Your task to perform on an android device: Go to calendar. Show me events next week Image 0: 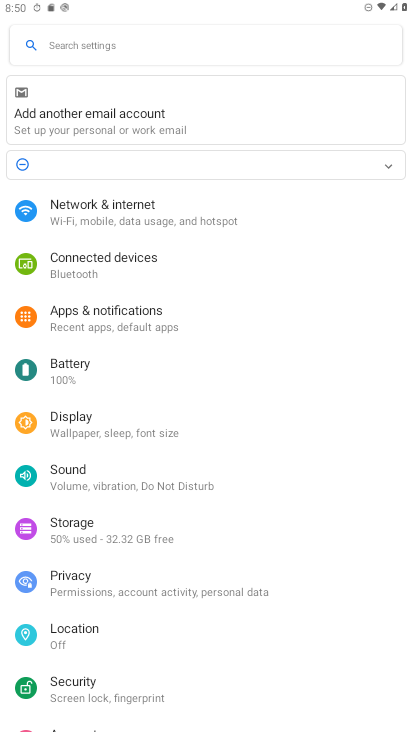
Step 0: press home button
Your task to perform on an android device: Go to calendar. Show me events next week Image 1: 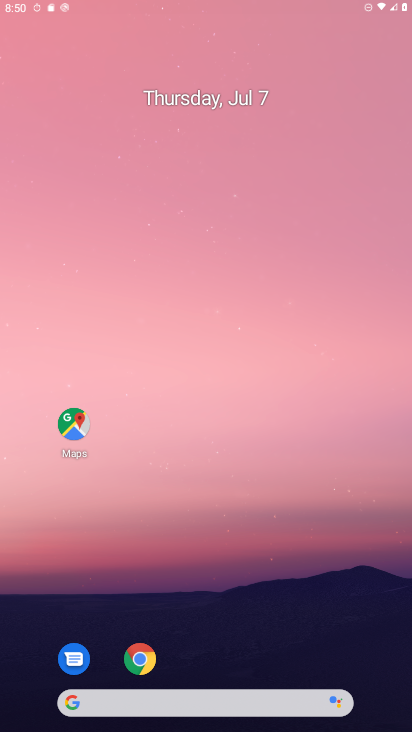
Step 1: drag from (357, 696) to (239, 42)
Your task to perform on an android device: Go to calendar. Show me events next week Image 2: 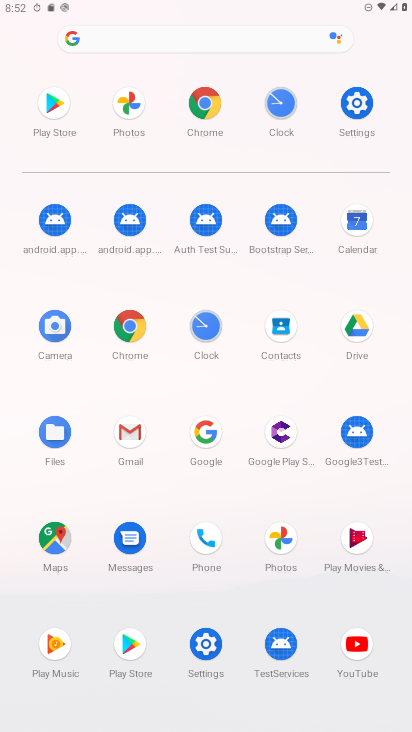
Step 2: click (360, 230)
Your task to perform on an android device: Go to calendar. Show me events next week Image 3: 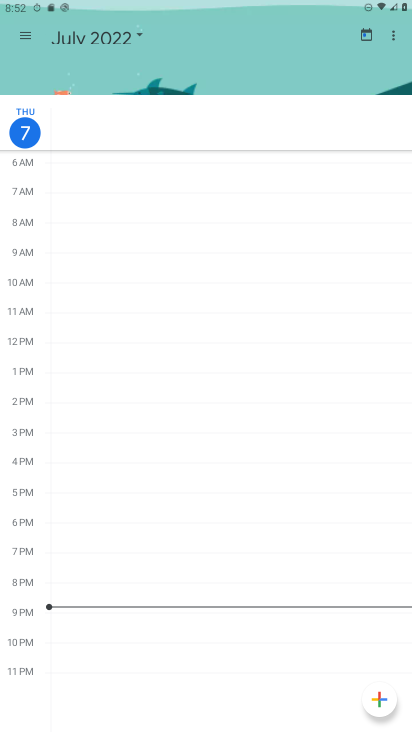
Step 3: task complete